Your task to perform on an android device: remove spam from my inbox in the gmail app Image 0: 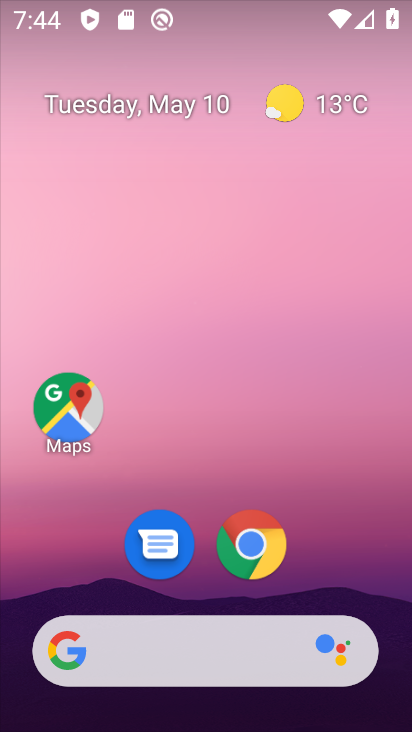
Step 0: drag from (199, 617) to (371, 86)
Your task to perform on an android device: remove spam from my inbox in the gmail app Image 1: 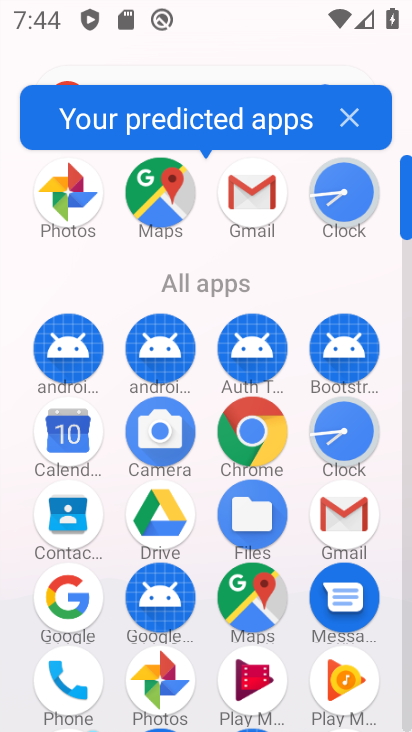
Step 1: click (336, 520)
Your task to perform on an android device: remove spam from my inbox in the gmail app Image 2: 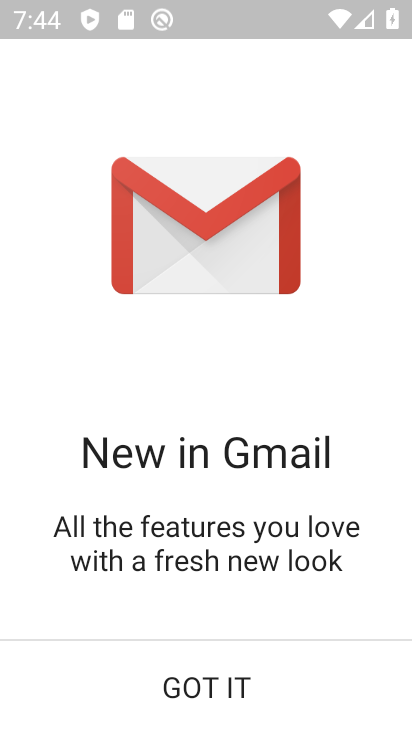
Step 2: click (232, 682)
Your task to perform on an android device: remove spam from my inbox in the gmail app Image 3: 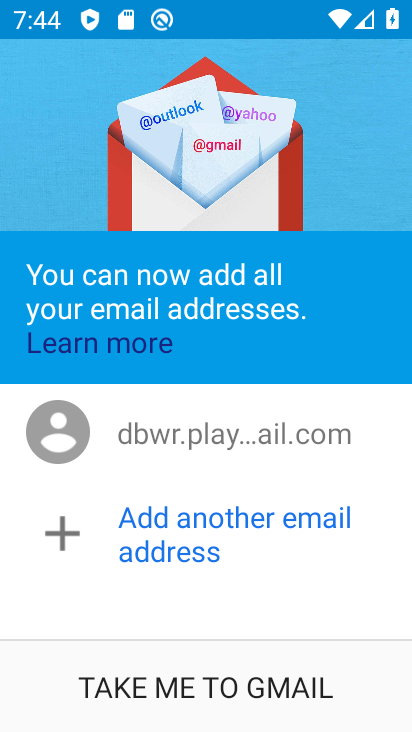
Step 3: click (230, 681)
Your task to perform on an android device: remove spam from my inbox in the gmail app Image 4: 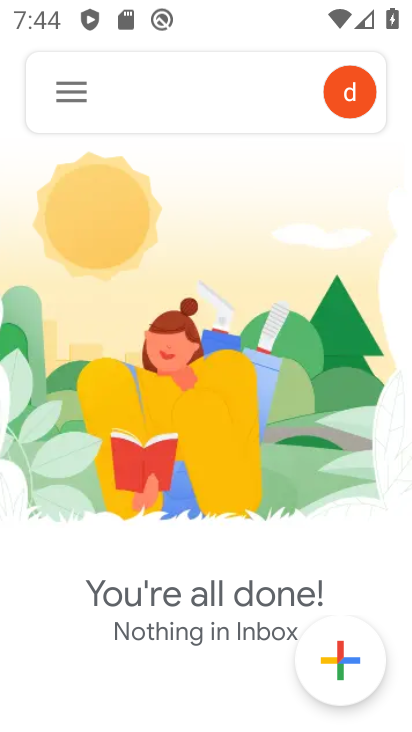
Step 4: click (76, 92)
Your task to perform on an android device: remove spam from my inbox in the gmail app Image 5: 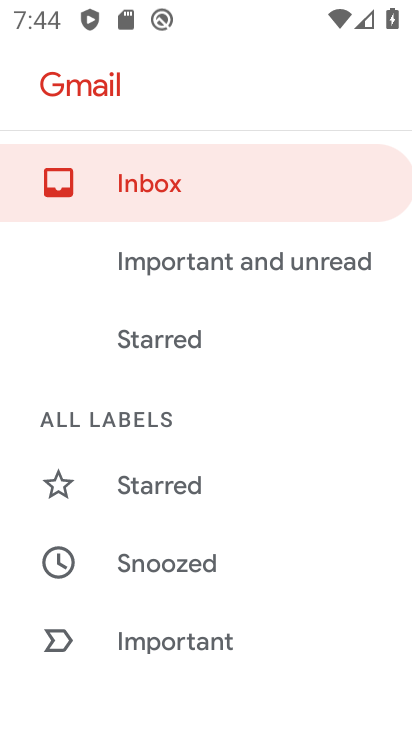
Step 5: drag from (188, 634) to (228, 289)
Your task to perform on an android device: remove spam from my inbox in the gmail app Image 6: 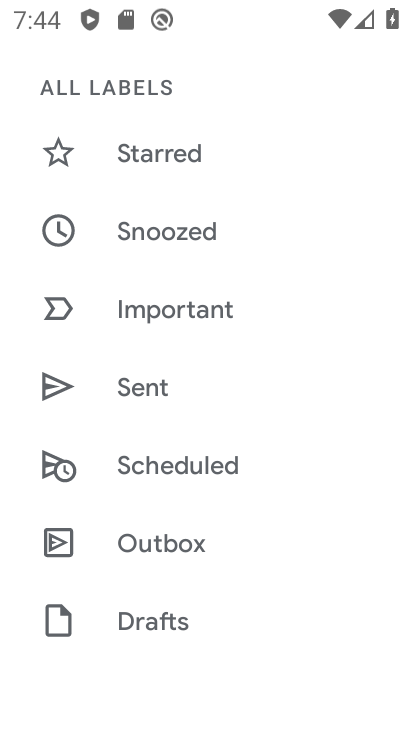
Step 6: drag from (211, 633) to (323, 246)
Your task to perform on an android device: remove spam from my inbox in the gmail app Image 7: 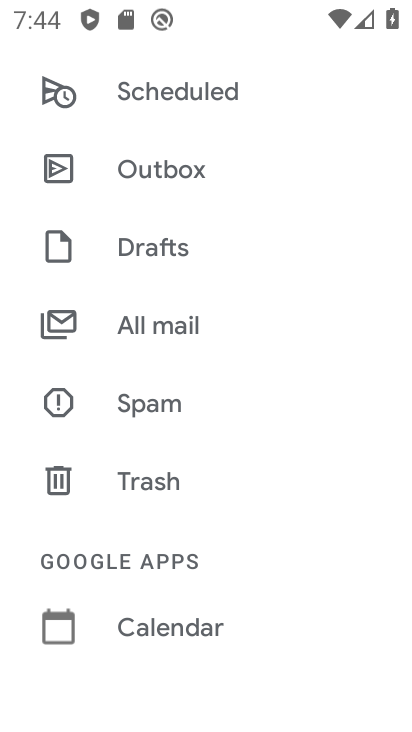
Step 7: click (150, 400)
Your task to perform on an android device: remove spam from my inbox in the gmail app Image 8: 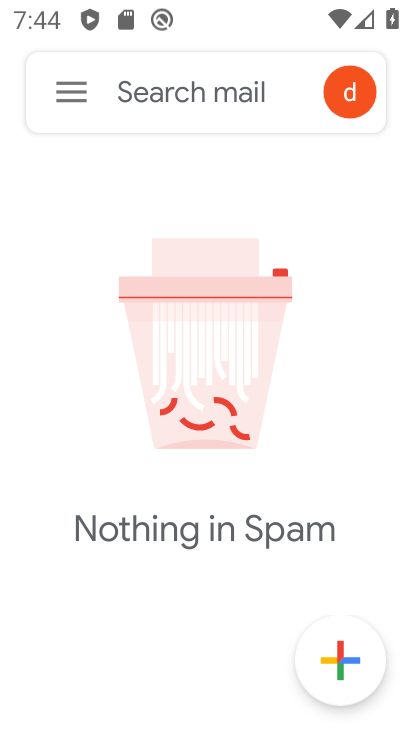
Step 8: task complete